Your task to perform on an android device: Go to calendar. Show me events next week Image 0: 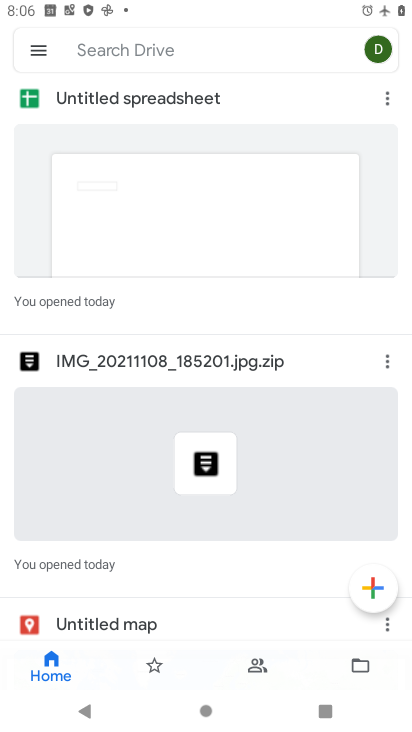
Step 0: press home button
Your task to perform on an android device: Go to calendar. Show me events next week Image 1: 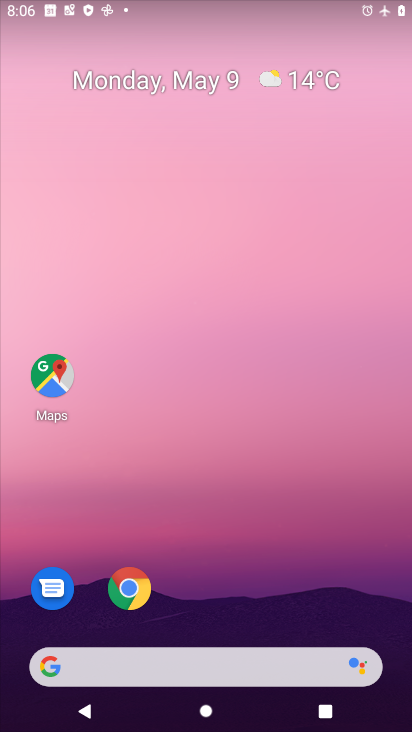
Step 1: drag from (304, 589) to (300, 17)
Your task to perform on an android device: Go to calendar. Show me events next week Image 2: 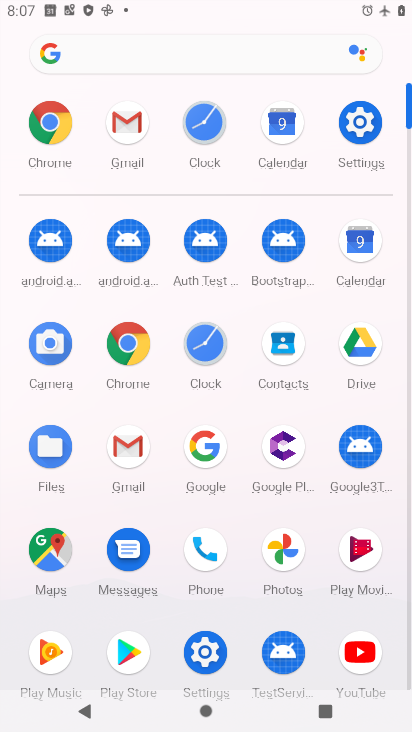
Step 2: click (356, 270)
Your task to perform on an android device: Go to calendar. Show me events next week Image 3: 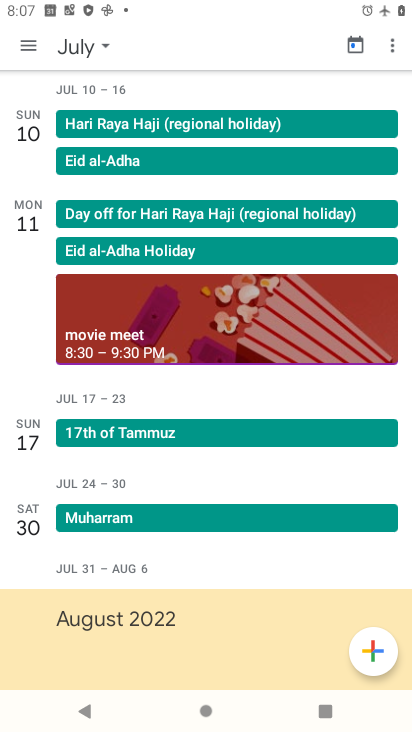
Step 3: click (26, 44)
Your task to perform on an android device: Go to calendar. Show me events next week Image 4: 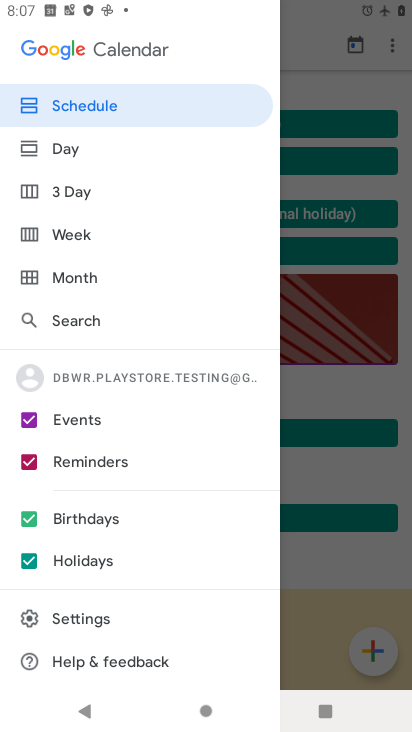
Step 4: click (98, 104)
Your task to perform on an android device: Go to calendar. Show me events next week Image 5: 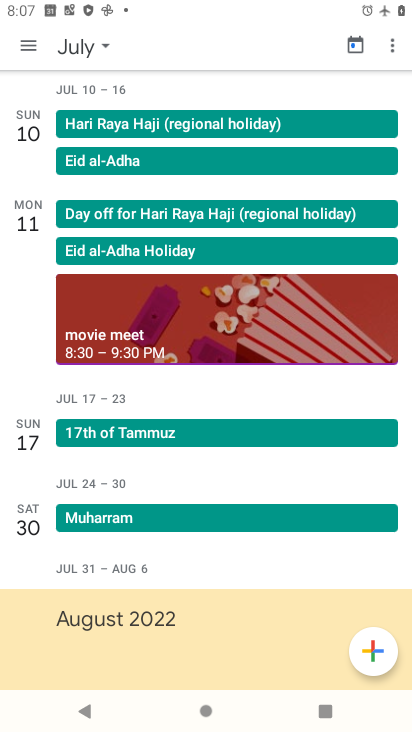
Step 5: click (153, 118)
Your task to perform on an android device: Go to calendar. Show me events next week Image 6: 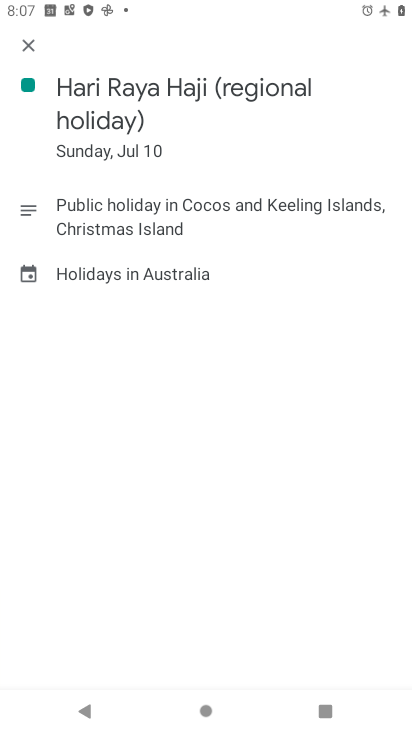
Step 6: task complete